Your task to perform on an android device: toggle show notifications on the lock screen Image 0: 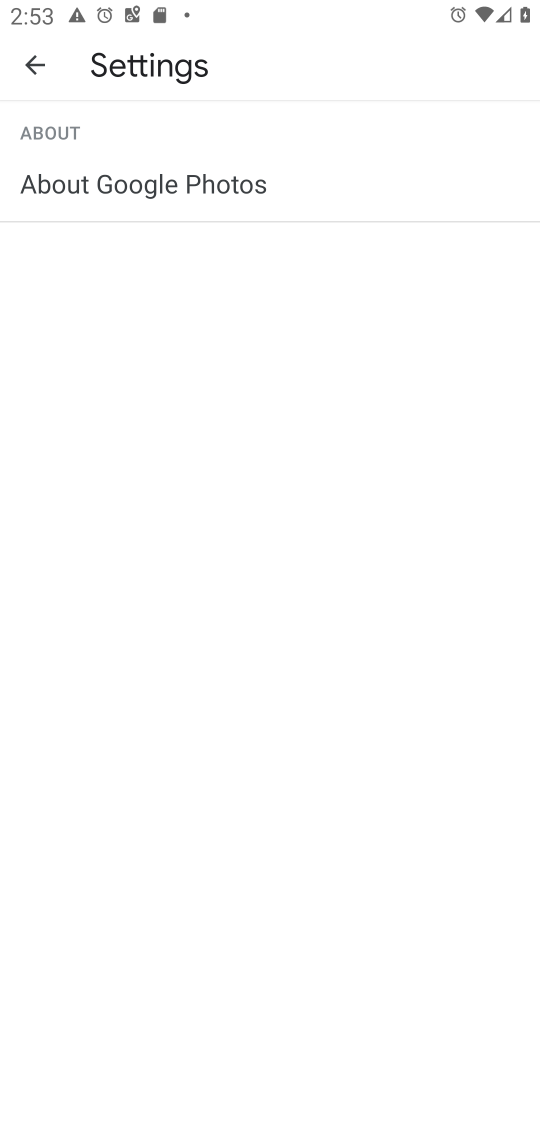
Step 0: press home button
Your task to perform on an android device: toggle show notifications on the lock screen Image 1: 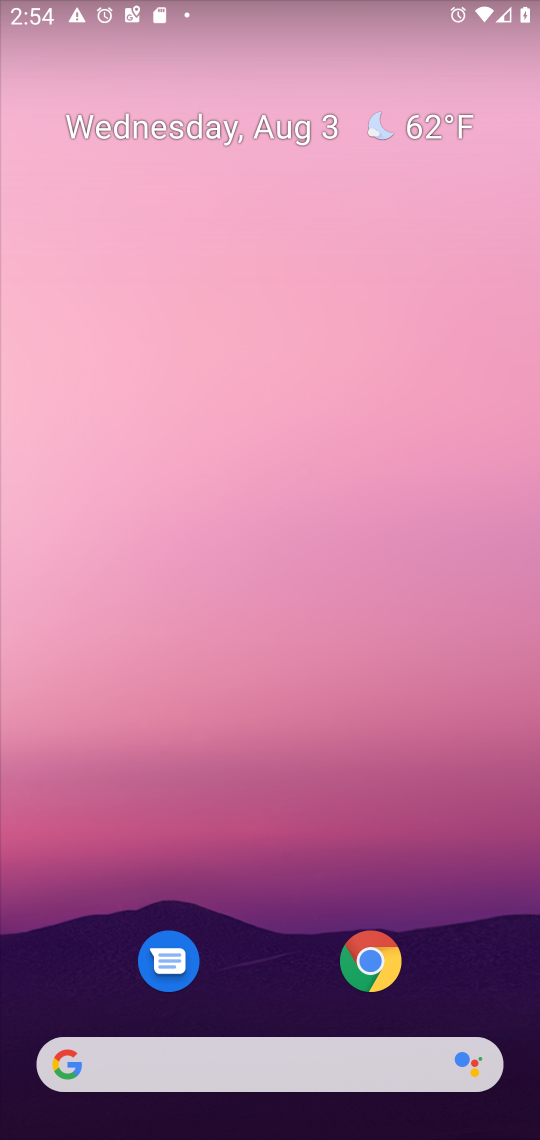
Step 1: drag from (280, 974) to (309, 83)
Your task to perform on an android device: toggle show notifications on the lock screen Image 2: 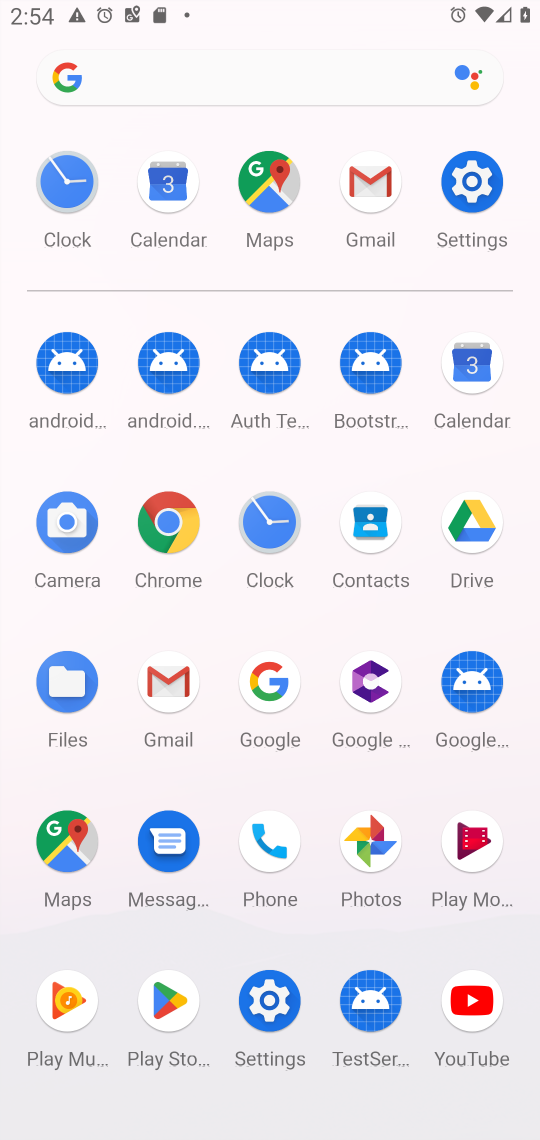
Step 2: click (466, 184)
Your task to perform on an android device: toggle show notifications on the lock screen Image 3: 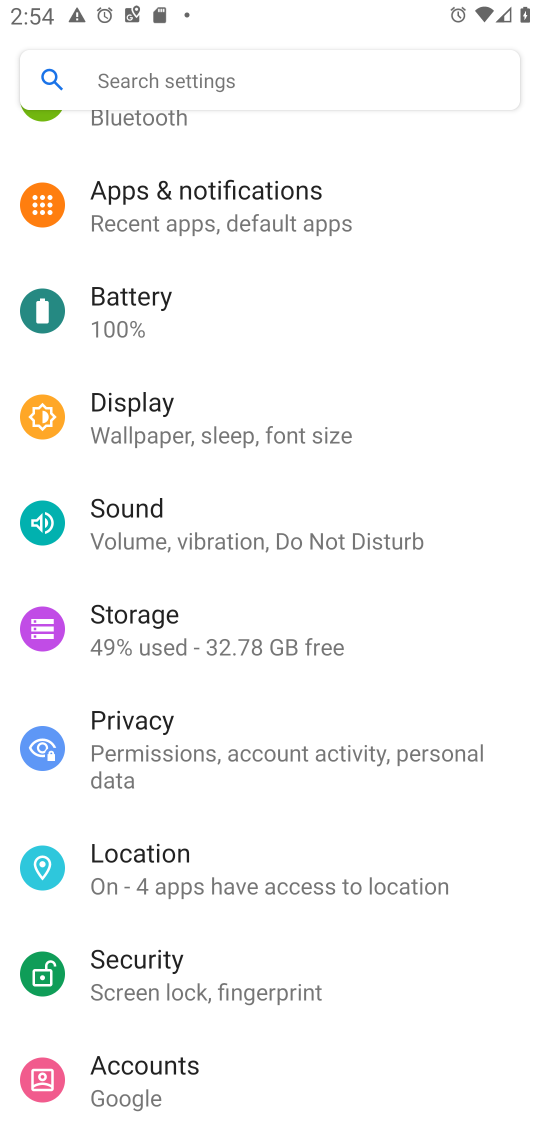
Step 3: click (206, 222)
Your task to perform on an android device: toggle show notifications on the lock screen Image 4: 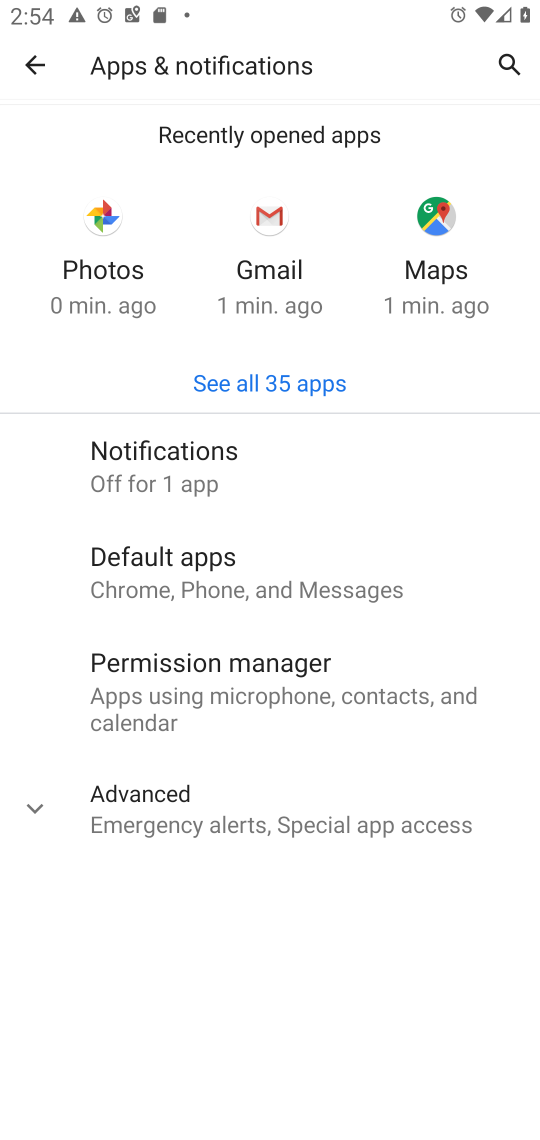
Step 4: click (154, 462)
Your task to perform on an android device: toggle show notifications on the lock screen Image 5: 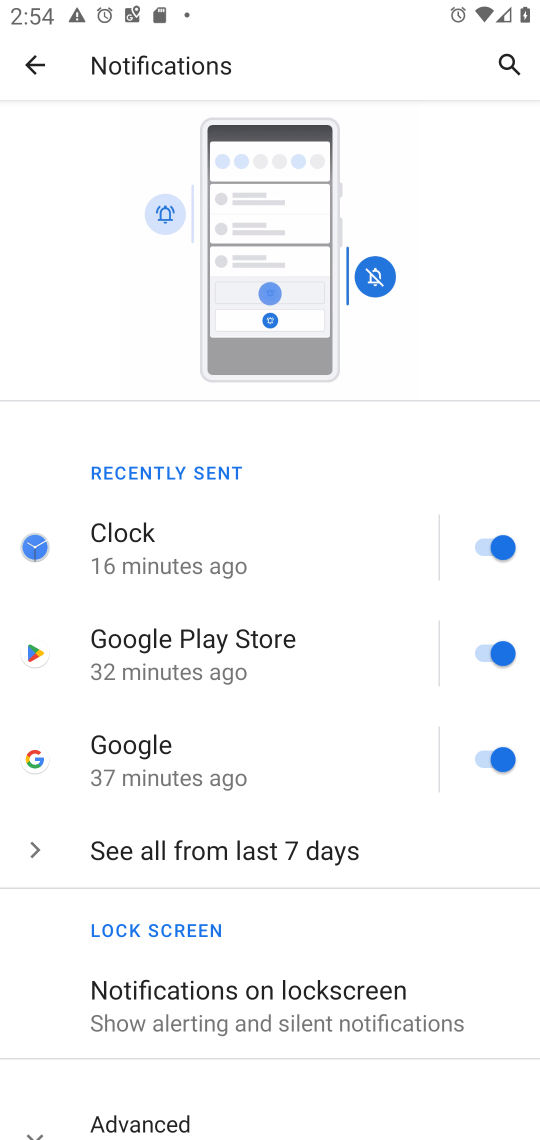
Step 5: click (154, 462)
Your task to perform on an android device: toggle show notifications on the lock screen Image 6: 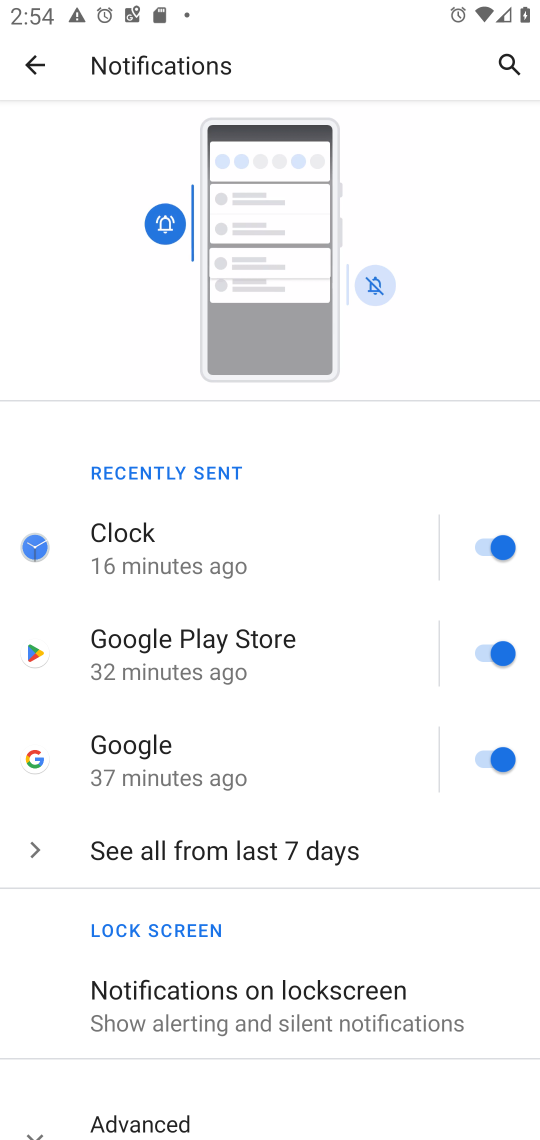
Step 6: click (201, 993)
Your task to perform on an android device: toggle show notifications on the lock screen Image 7: 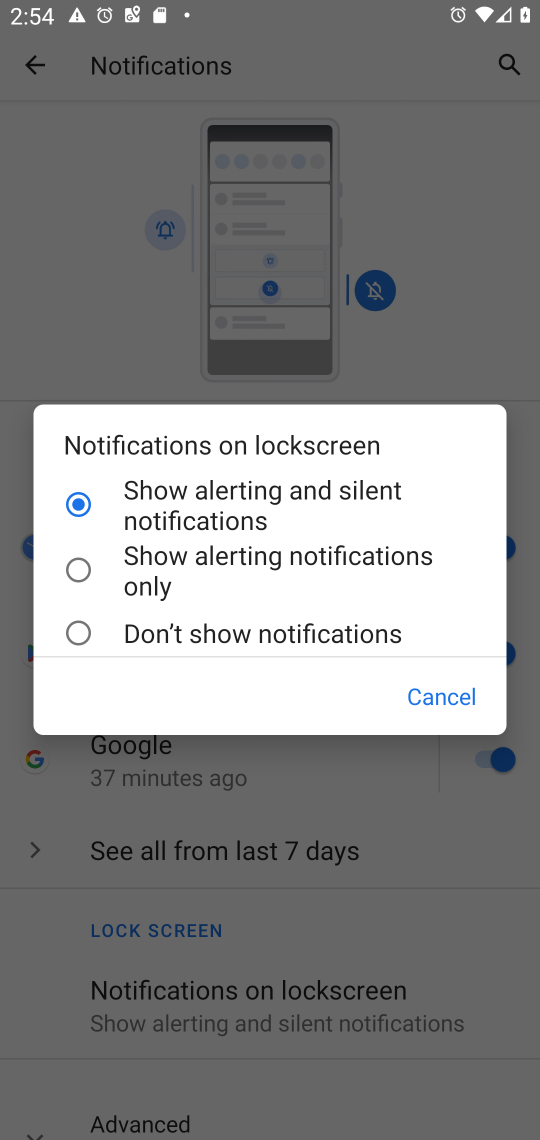
Step 7: click (72, 631)
Your task to perform on an android device: toggle show notifications on the lock screen Image 8: 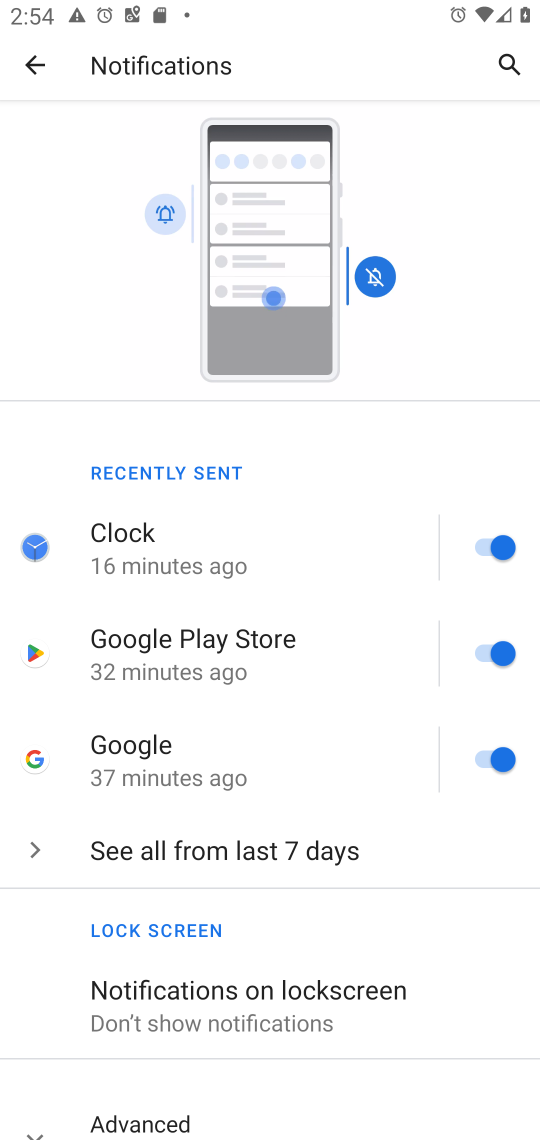
Step 8: task complete